Your task to perform on an android device: Show the shopping cart on walmart.com. Add "bose soundsport free" to the cart on walmart.com Image 0: 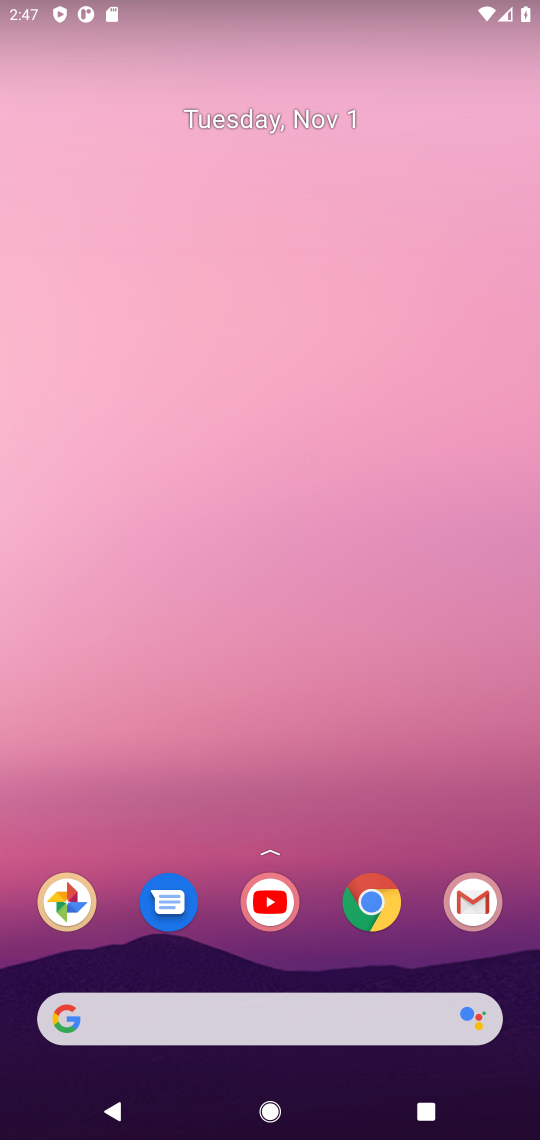
Step 0: click (371, 903)
Your task to perform on an android device: Show the shopping cart on walmart.com. Add "bose soundsport free" to the cart on walmart.com Image 1: 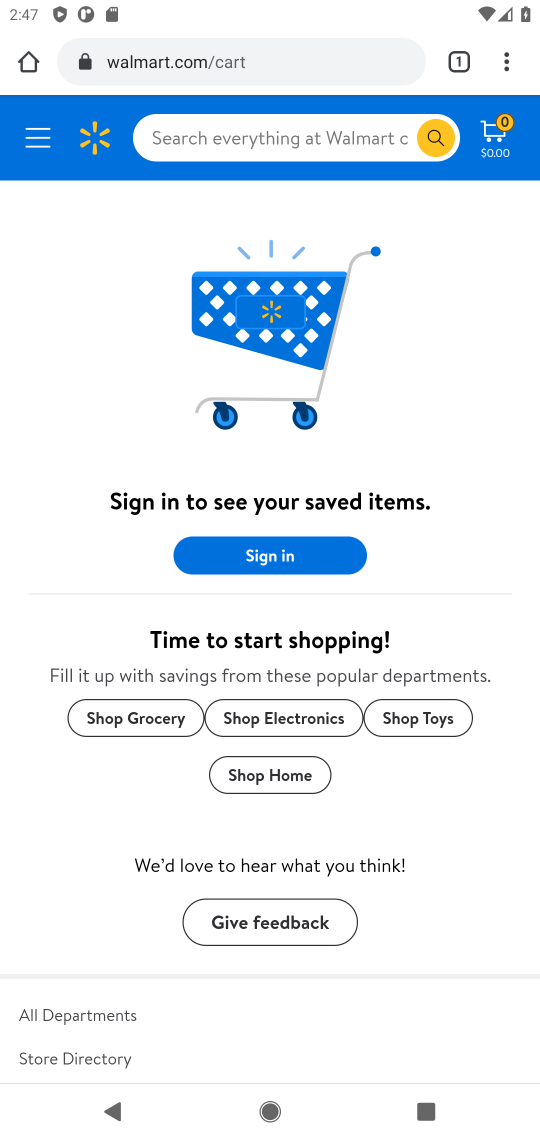
Step 1: click (295, 52)
Your task to perform on an android device: Show the shopping cart on walmart.com. Add "bose soundsport free" to the cart on walmart.com Image 2: 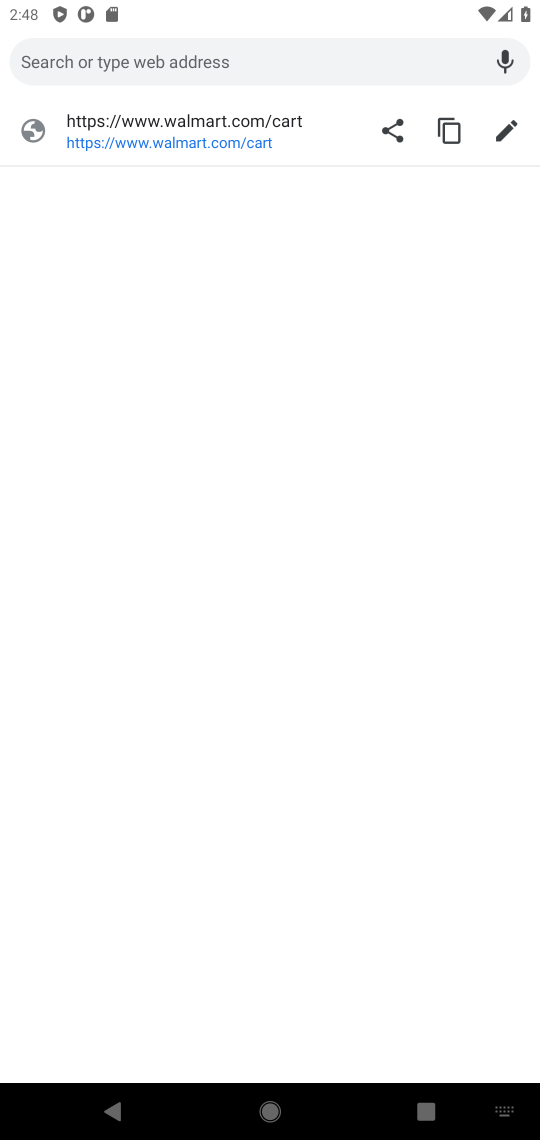
Step 2: type "walmart.com"
Your task to perform on an android device: Show the shopping cart on walmart.com. Add "bose soundsport free" to the cart on walmart.com Image 3: 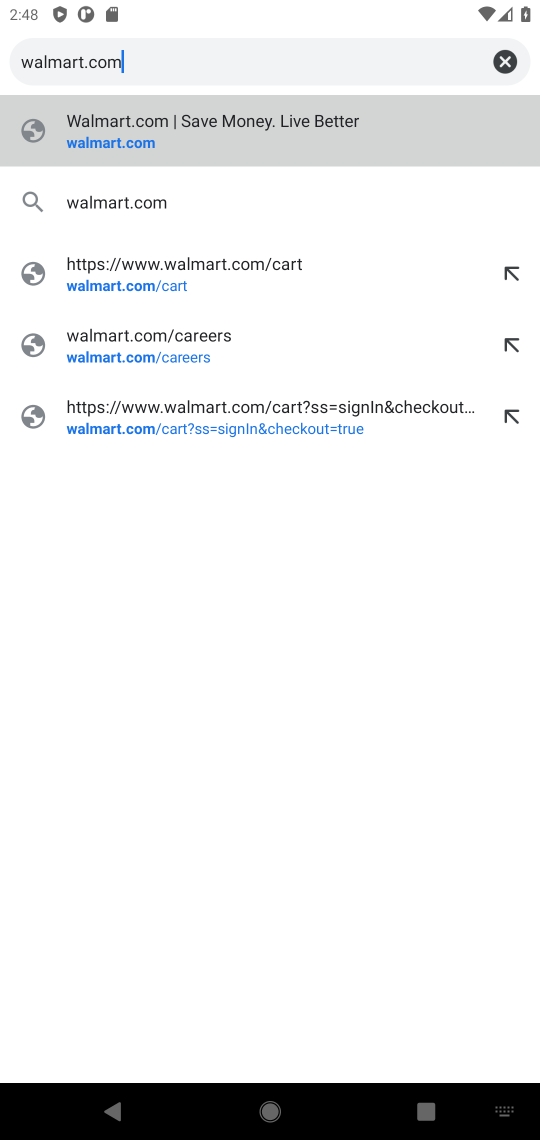
Step 3: click (157, 191)
Your task to perform on an android device: Show the shopping cart on walmart.com. Add "bose soundsport free" to the cart on walmart.com Image 4: 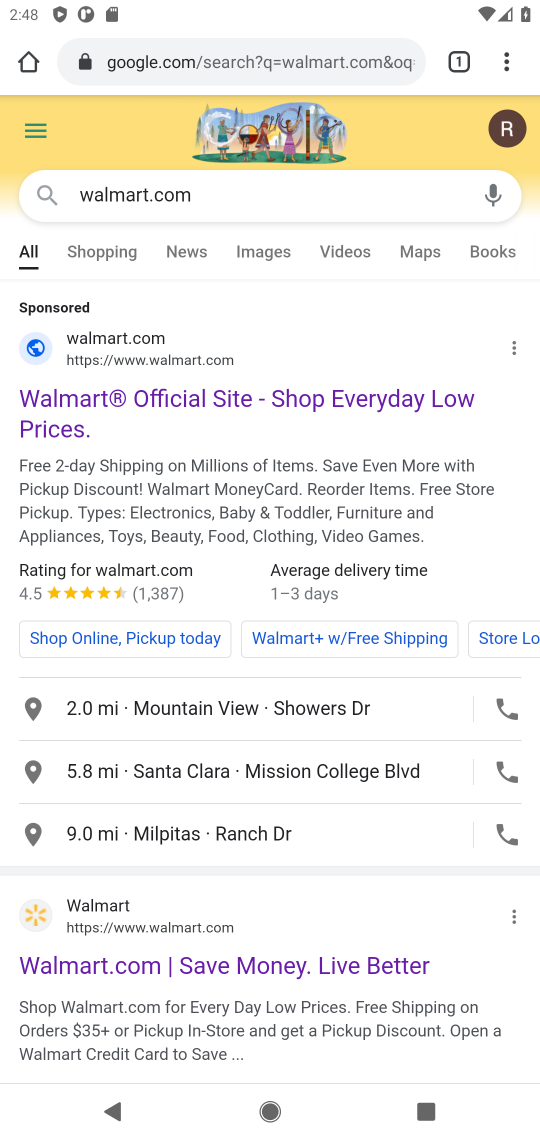
Step 4: click (196, 963)
Your task to perform on an android device: Show the shopping cart on walmart.com. Add "bose soundsport free" to the cart on walmart.com Image 5: 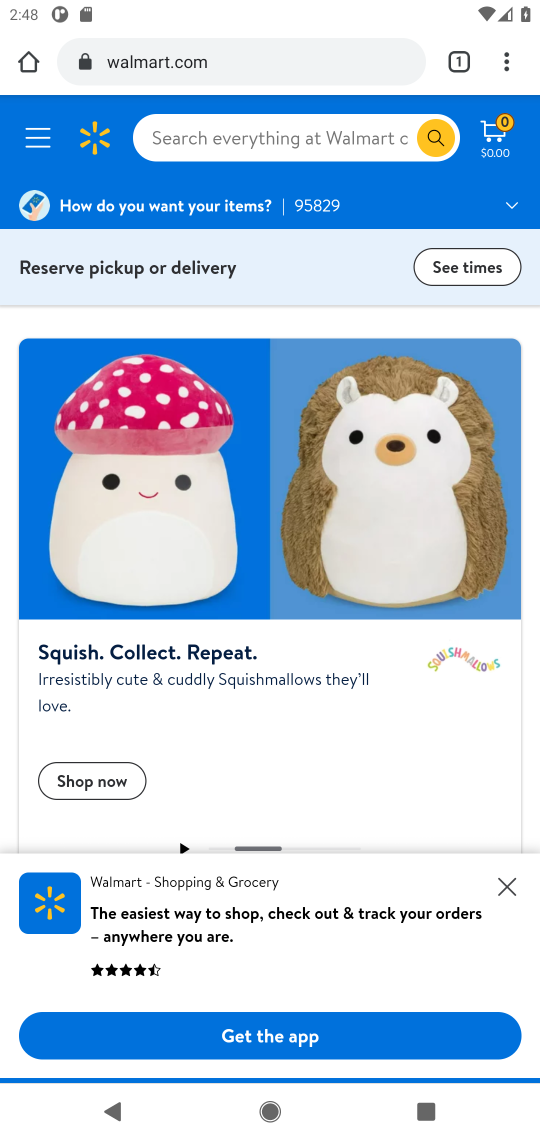
Step 5: click (501, 132)
Your task to perform on an android device: Show the shopping cart on walmart.com. Add "bose soundsport free" to the cart on walmart.com Image 6: 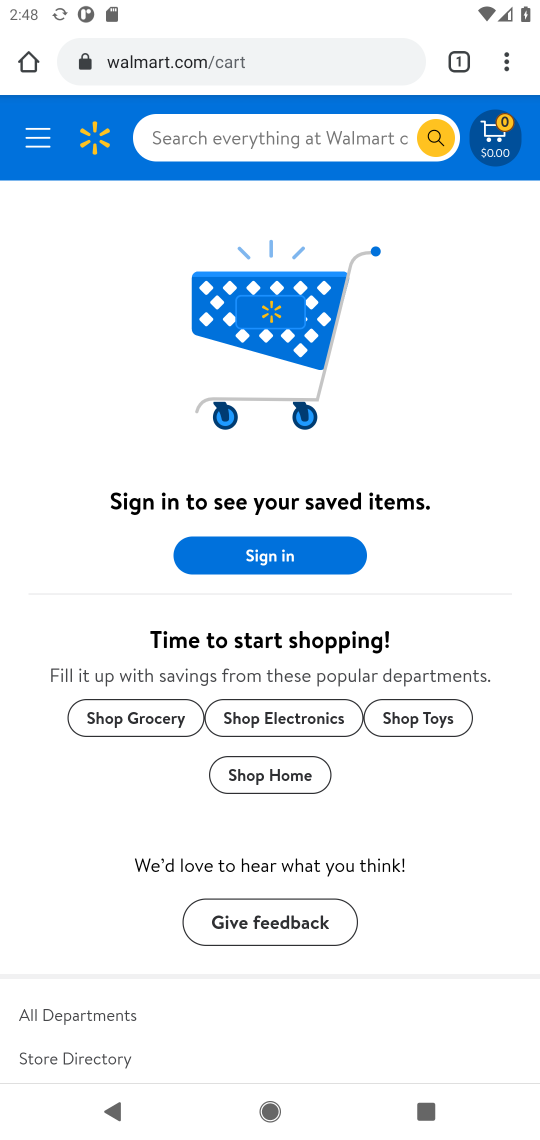
Step 6: click (286, 146)
Your task to perform on an android device: Show the shopping cart on walmart.com. Add "bose soundsport free" to the cart on walmart.com Image 7: 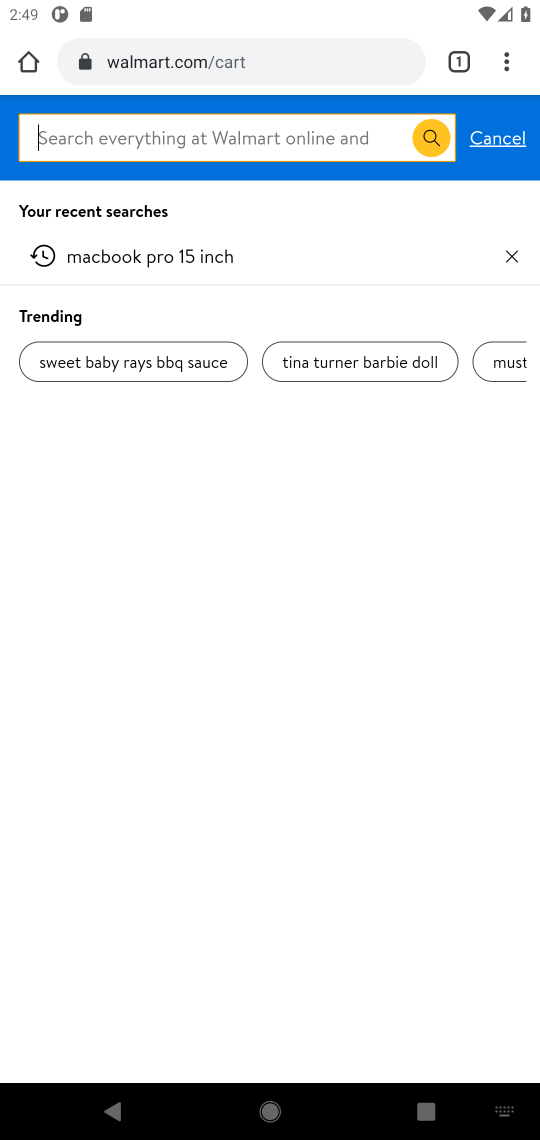
Step 7: type "bose soundsport free"
Your task to perform on an android device: Show the shopping cart on walmart.com. Add "bose soundsport free" to the cart on walmart.com Image 8: 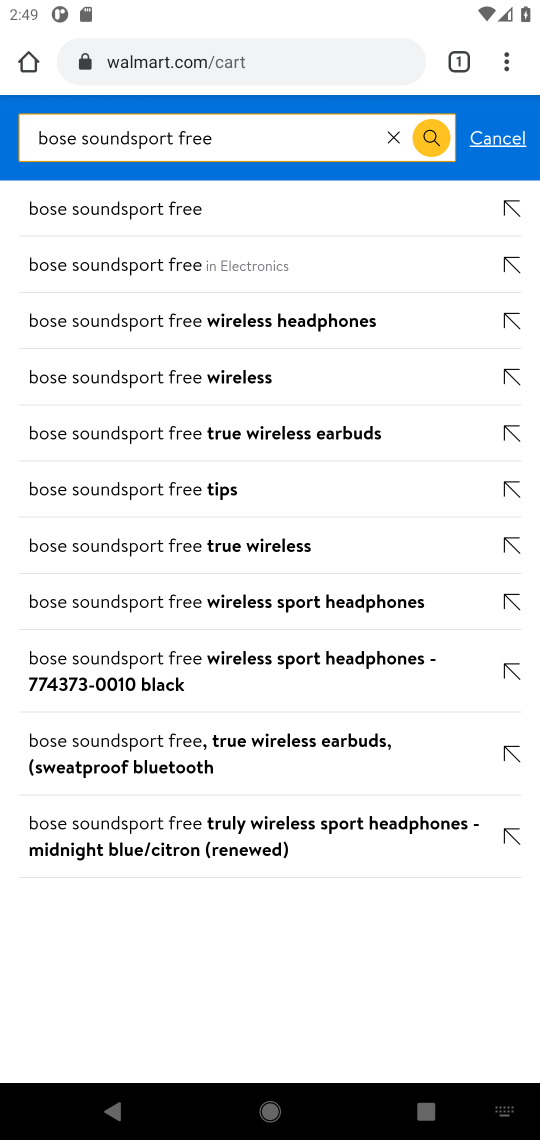
Step 8: click (93, 211)
Your task to perform on an android device: Show the shopping cart on walmart.com. Add "bose soundsport free" to the cart on walmart.com Image 9: 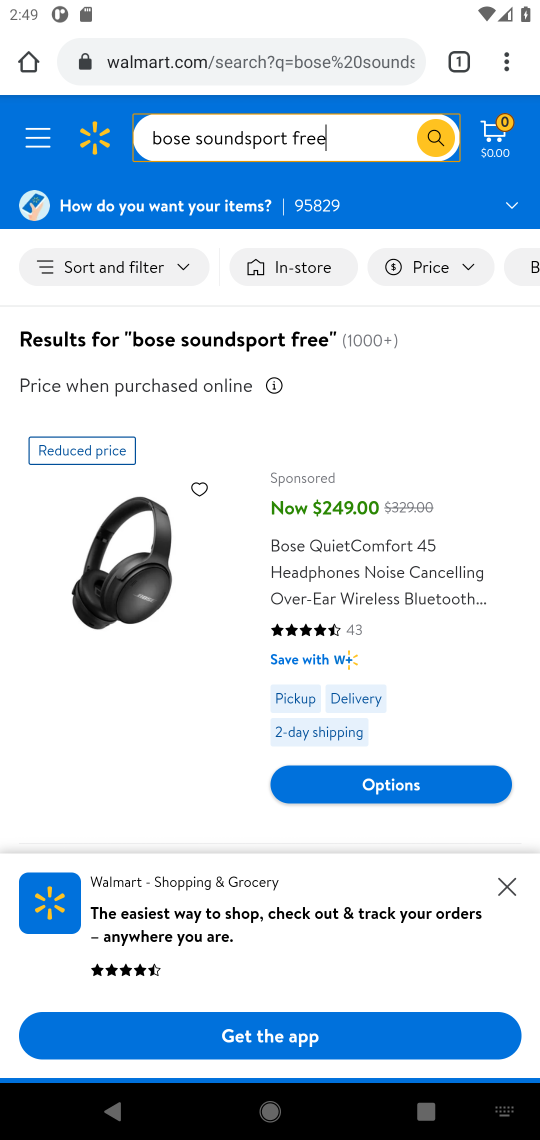
Step 9: click (343, 515)
Your task to perform on an android device: Show the shopping cart on walmart.com. Add "bose soundsport free" to the cart on walmart.com Image 10: 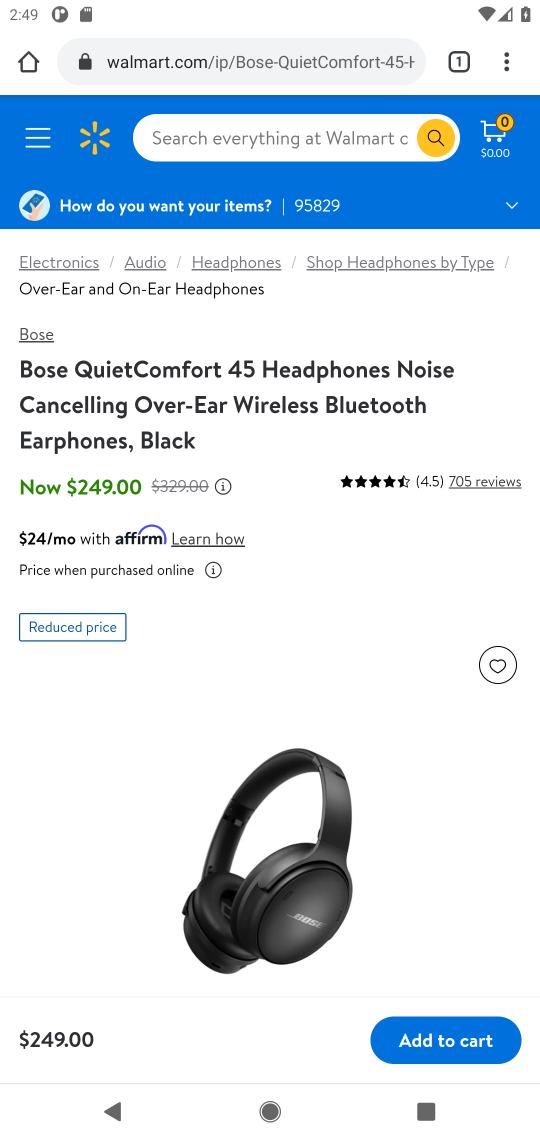
Step 10: click (429, 1045)
Your task to perform on an android device: Show the shopping cart on walmart.com. Add "bose soundsport free" to the cart on walmart.com Image 11: 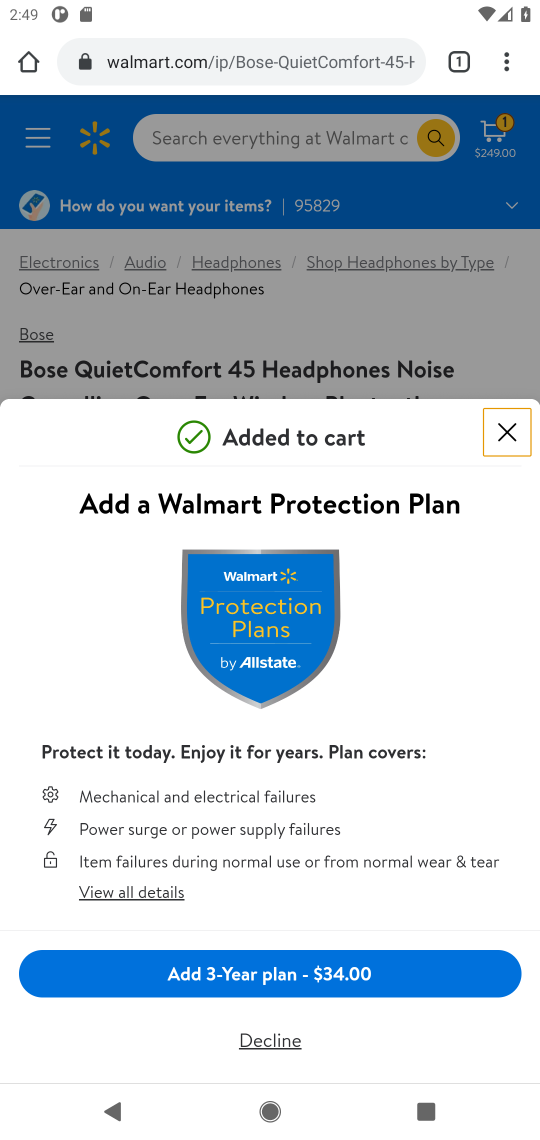
Step 11: click (280, 1044)
Your task to perform on an android device: Show the shopping cart on walmart.com. Add "bose soundsport free" to the cart on walmart.com Image 12: 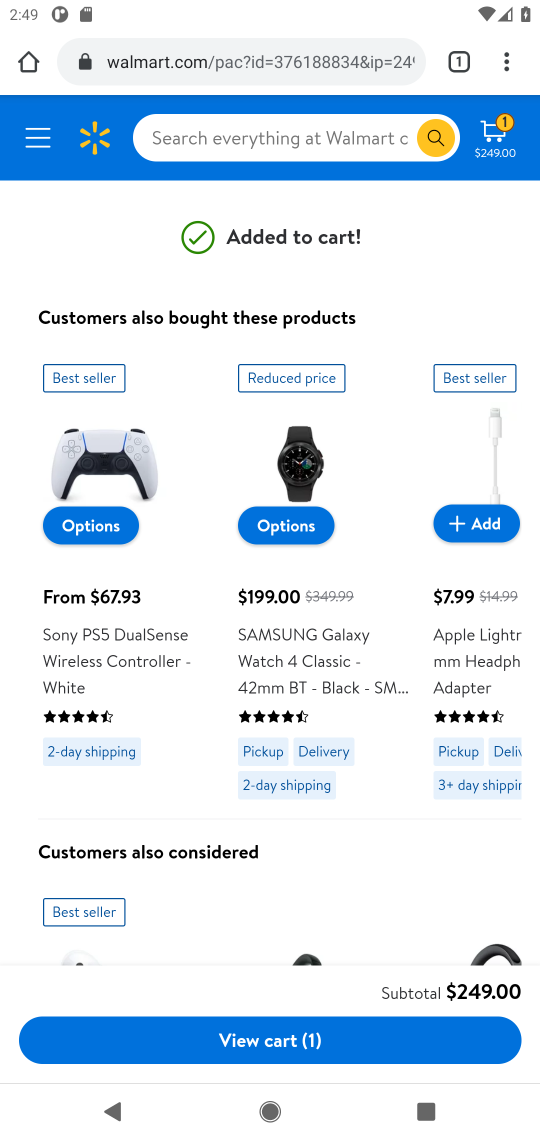
Step 12: click (297, 1038)
Your task to perform on an android device: Show the shopping cart on walmart.com. Add "bose soundsport free" to the cart on walmart.com Image 13: 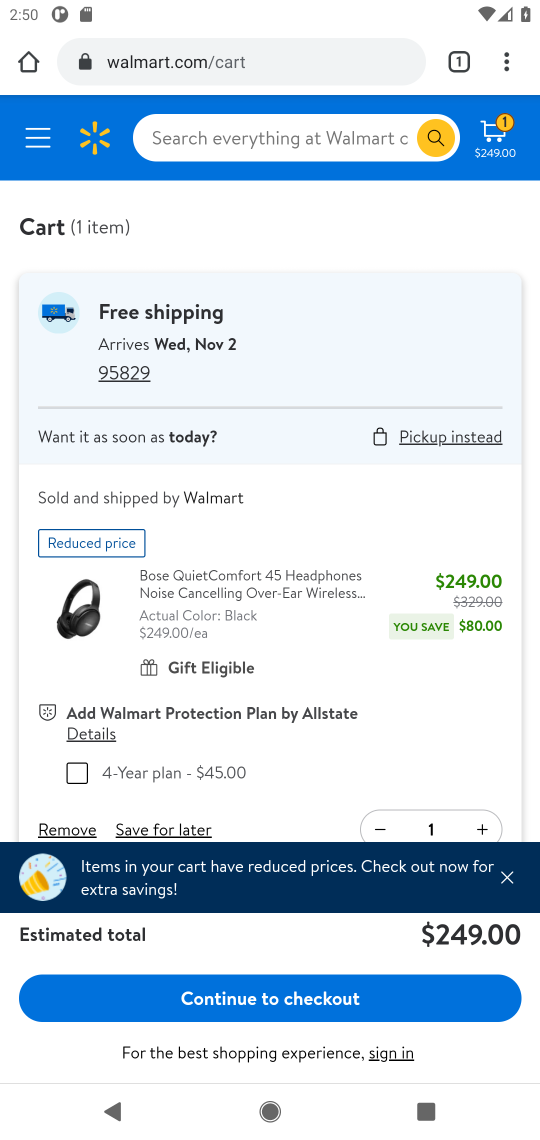
Step 13: task complete